Your task to perform on an android device: change alarm snooze length Image 0: 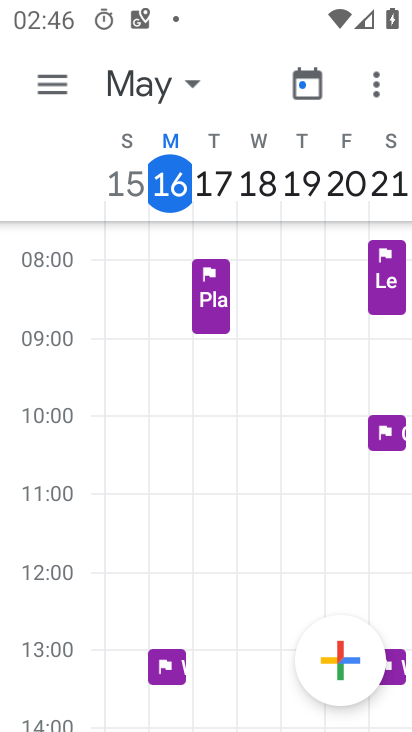
Step 0: press home button
Your task to perform on an android device: change alarm snooze length Image 1: 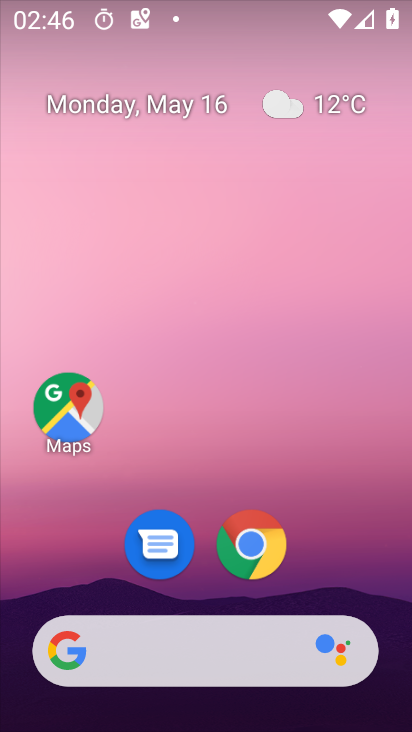
Step 1: drag from (200, 728) to (200, 187)
Your task to perform on an android device: change alarm snooze length Image 2: 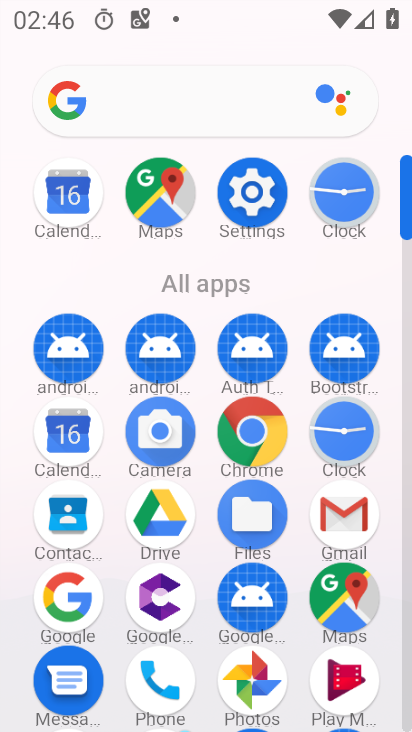
Step 2: click (345, 436)
Your task to perform on an android device: change alarm snooze length Image 3: 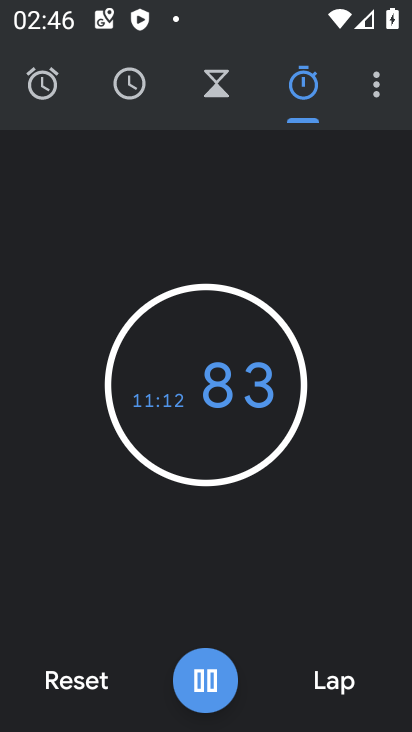
Step 3: click (380, 95)
Your task to perform on an android device: change alarm snooze length Image 4: 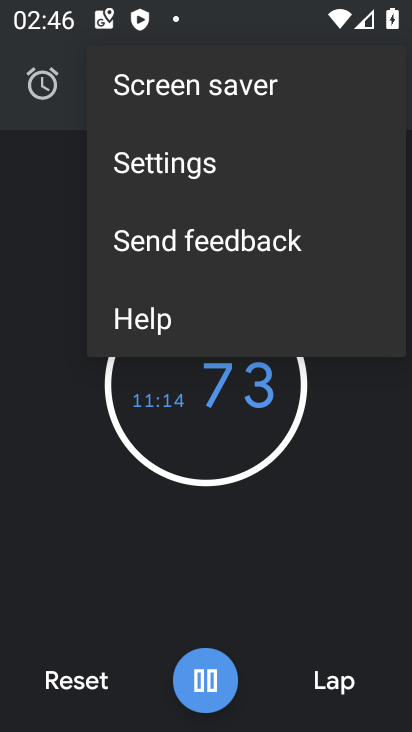
Step 4: click (160, 170)
Your task to perform on an android device: change alarm snooze length Image 5: 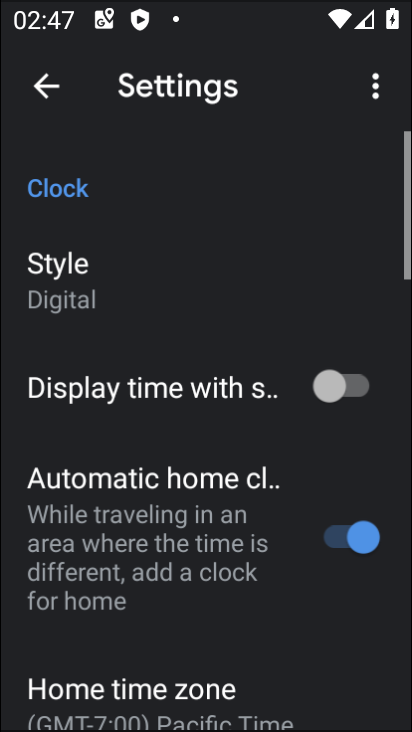
Step 5: click (166, 174)
Your task to perform on an android device: change alarm snooze length Image 6: 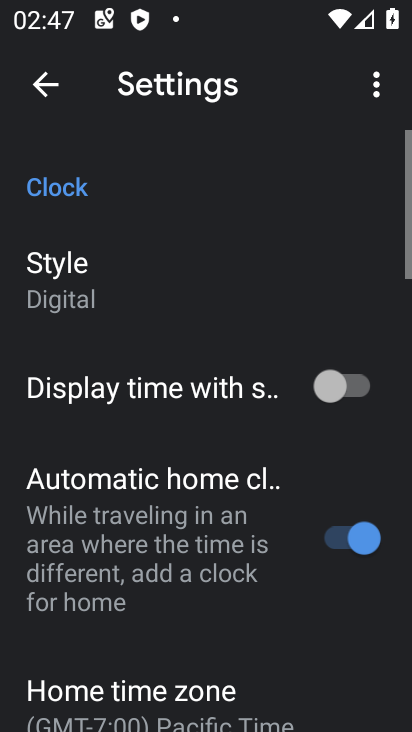
Step 6: drag from (132, 636) to (129, 325)
Your task to perform on an android device: change alarm snooze length Image 7: 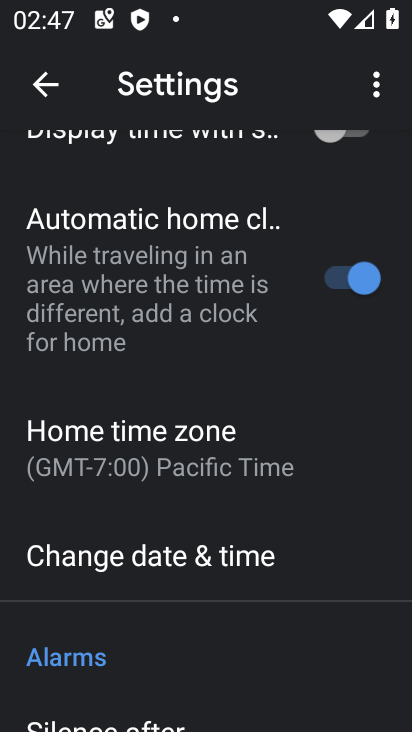
Step 7: drag from (127, 664) to (124, 276)
Your task to perform on an android device: change alarm snooze length Image 8: 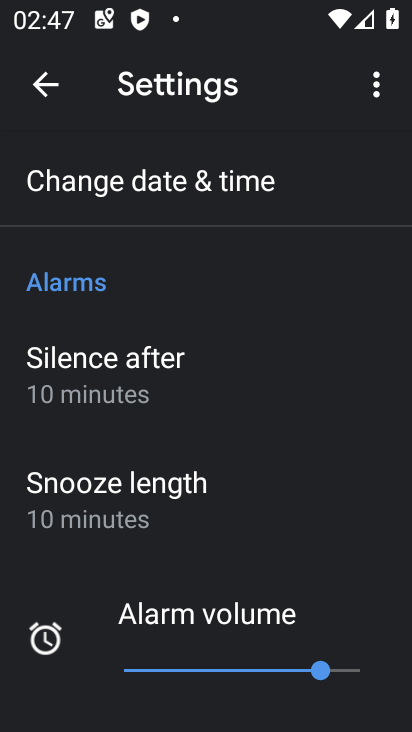
Step 8: click (107, 492)
Your task to perform on an android device: change alarm snooze length Image 9: 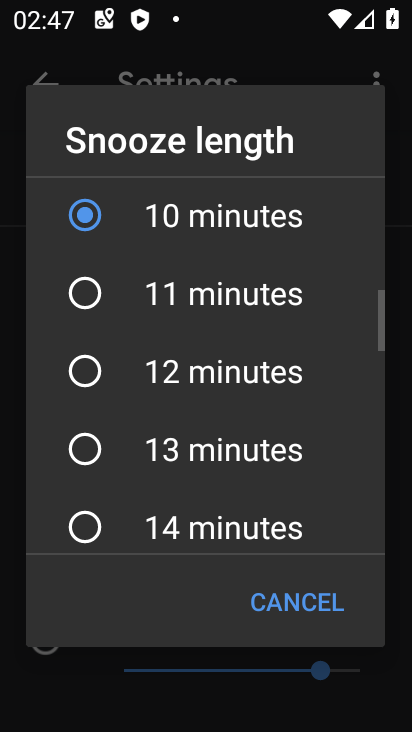
Step 9: click (91, 524)
Your task to perform on an android device: change alarm snooze length Image 10: 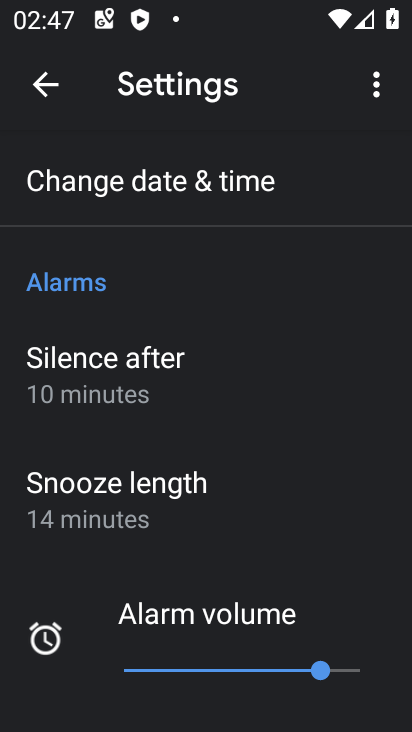
Step 10: task complete